Your task to perform on an android device: Open location settings Image 0: 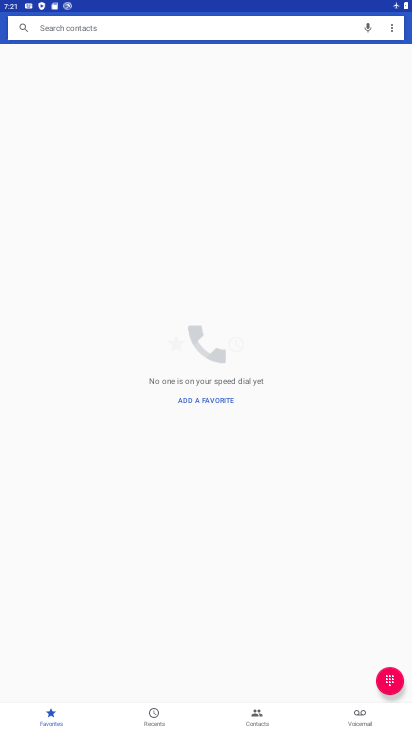
Step 0: press home button
Your task to perform on an android device: Open location settings Image 1: 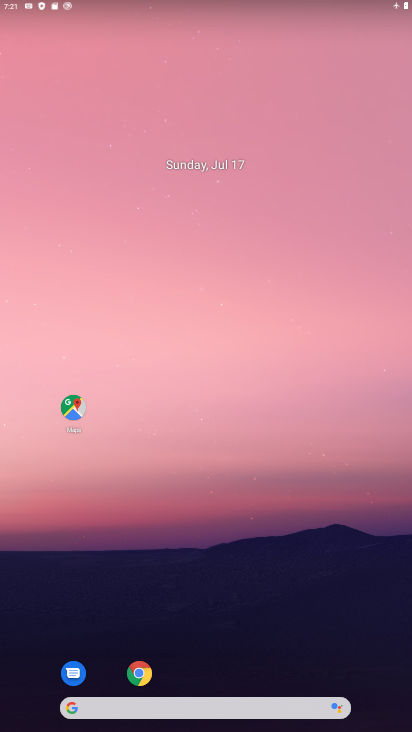
Step 1: drag from (265, 581) to (68, 28)
Your task to perform on an android device: Open location settings Image 2: 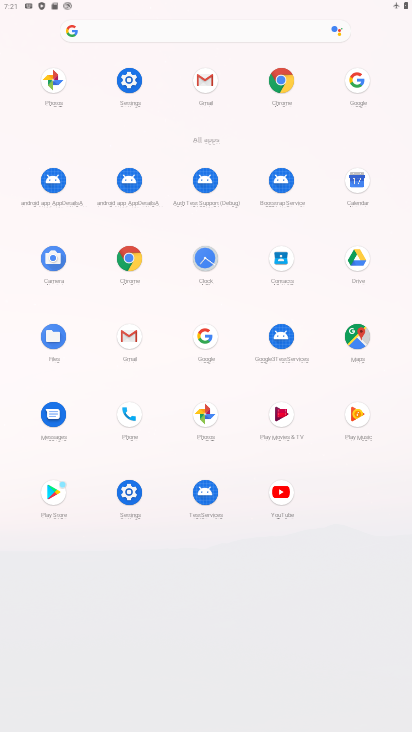
Step 2: click (104, 70)
Your task to perform on an android device: Open location settings Image 3: 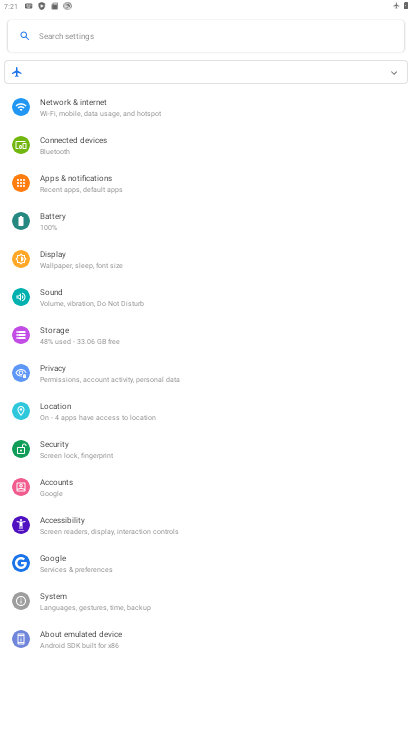
Step 3: click (70, 415)
Your task to perform on an android device: Open location settings Image 4: 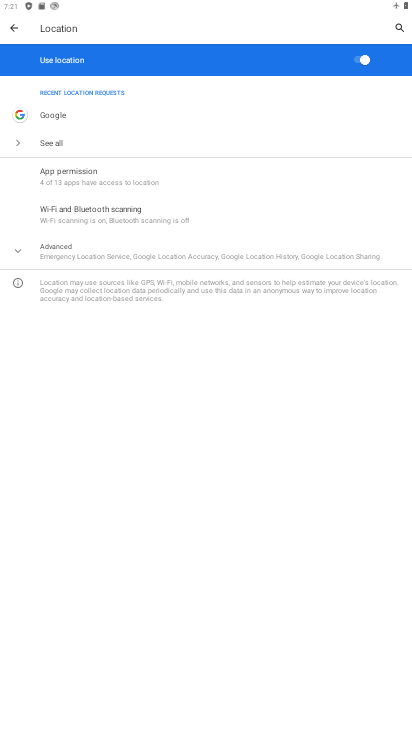
Step 4: task complete